Your task to perform on an android device: open app "Etsy: Buy & Sell Unique Items" (install if not already installed) Image 0: 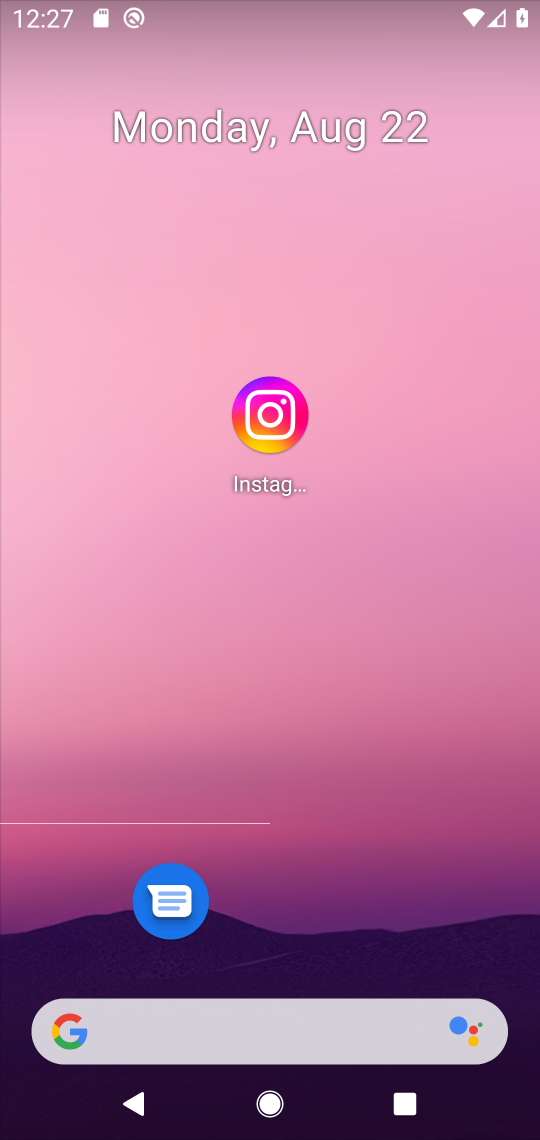
Step 0: drag from (245, 910) to (503, 208)
Your task to perform on an android device: open app "Etsy: Buy & Sell Unique Items" (install if not already installed) Image 1: 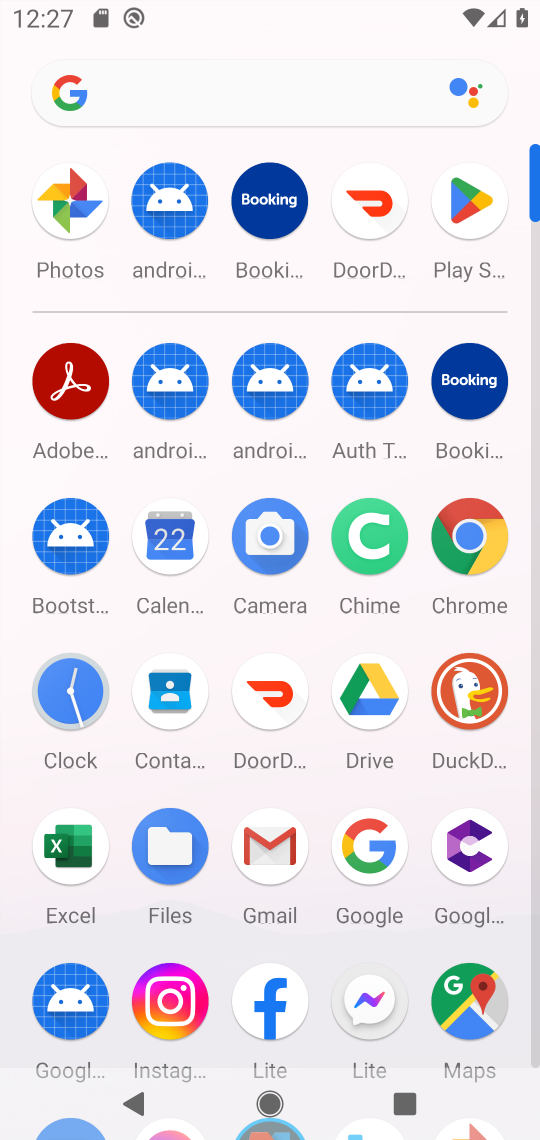
Step 1: click (494, 196)
Your task to perform on an android device: open app "Etsy: Buy & Sell Unique Items" (install if not already installed) Image 2: 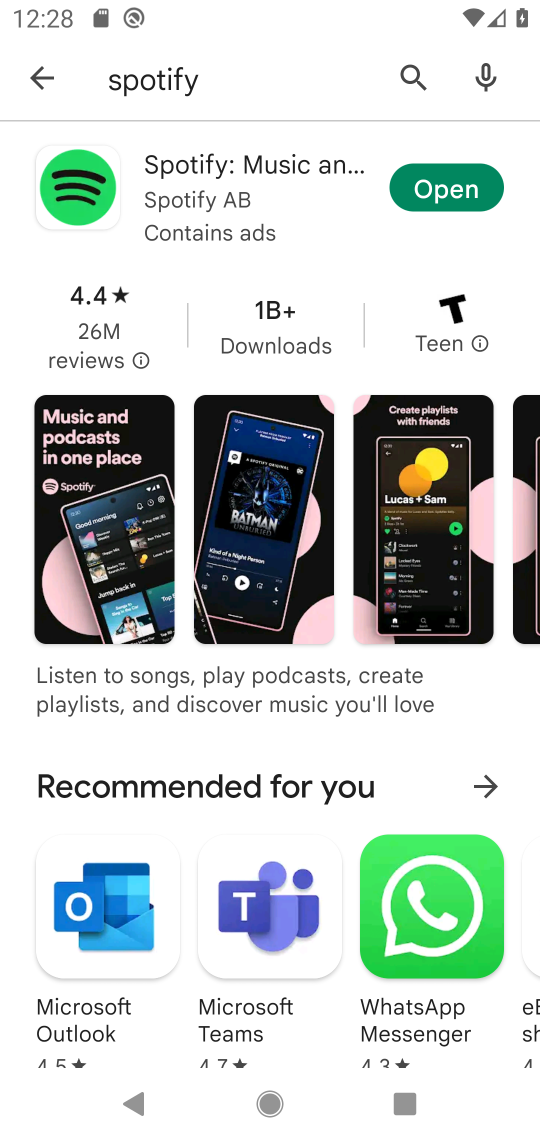
Step 2: click (427, 89)
Your task to perform on an android device: open app "Etsy: Buy & Sell Unique Items" (install if not already installed) Image 3: 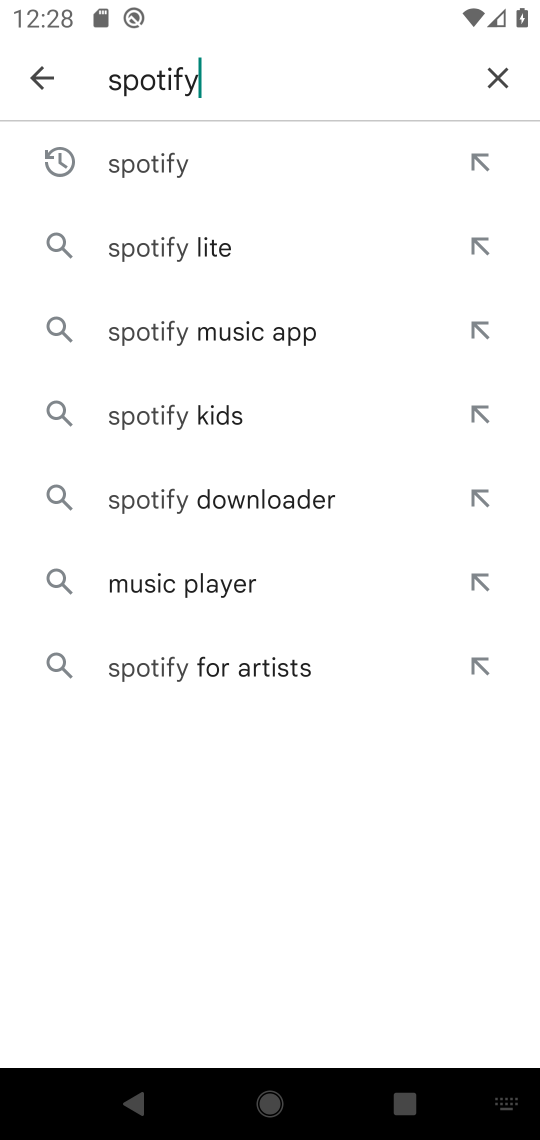
Step 3: click (480, 85)
Your task to perform on an android device: open app "Etsy: Buy & Sell Unique Items" (install if not already installed) Image 4: 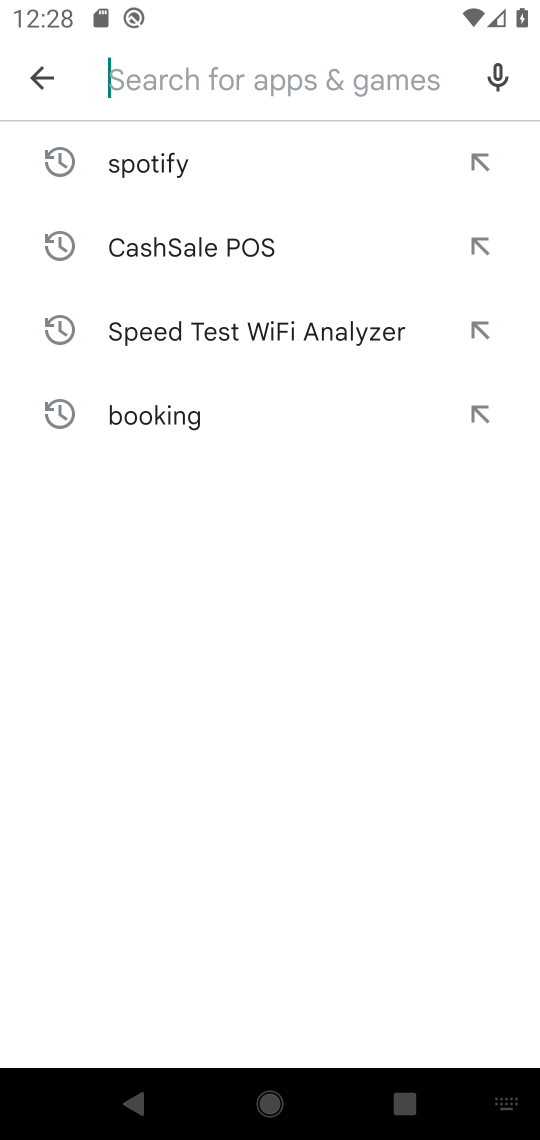
Step 4: type "etsy"
Your task to perform on an android device: open app "Etsy: Buy & Sell Unique Items" (install if not already installed) Image 5: 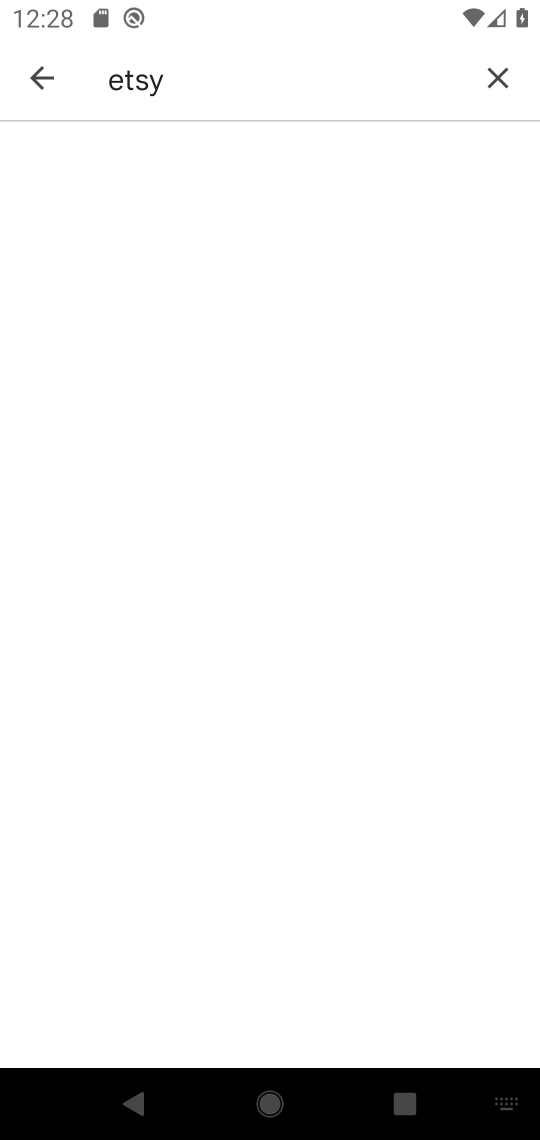
Step 5: task complete